Your task to perform on an android device: Play the last video I watched on Youtube Image 0: 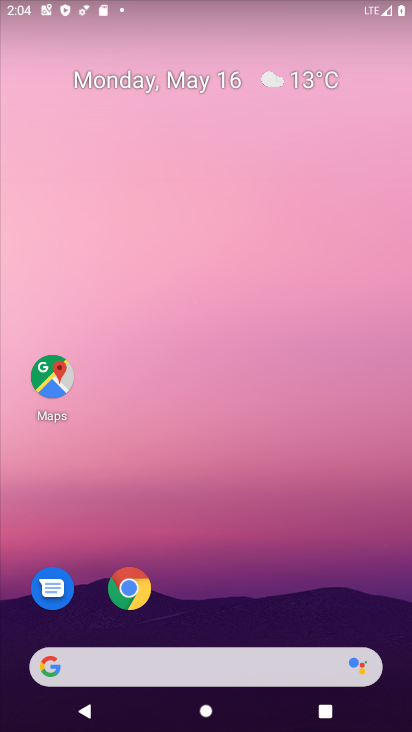
Step 0: drag from (152, 639) to (242, 121)
Your task to perform on an android device: Play the last video I watched on Youtube Image 1: 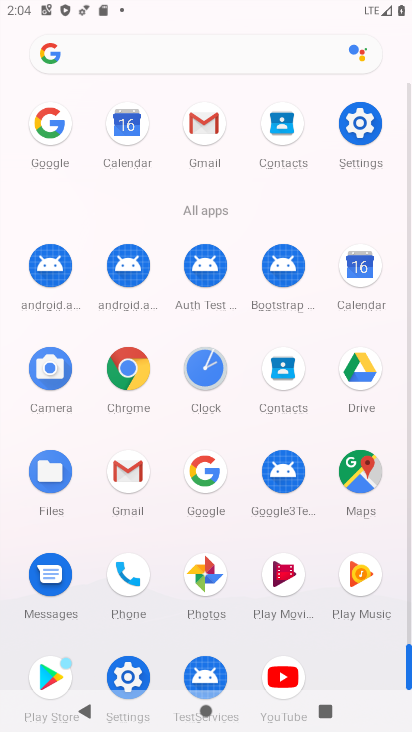
Step 1: drag from (231, 593) to (272, 434)
Your task to perform on an android device: Play the last video I watched on Youtube Image 2: 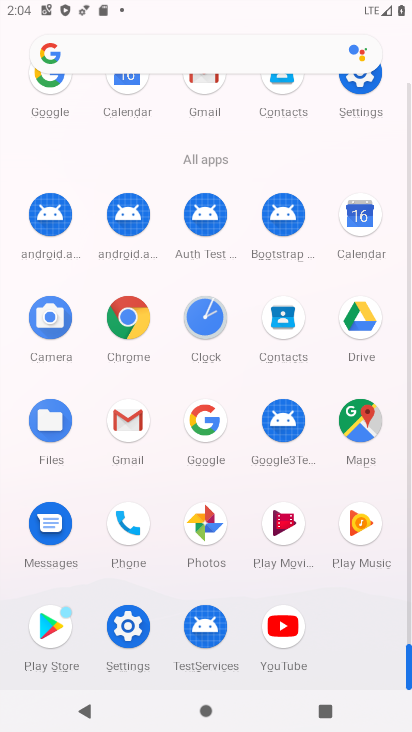
Step 2: click (285, 610)
Your task to perform on an android device: Play the last video I watched on Youtube Image 3: 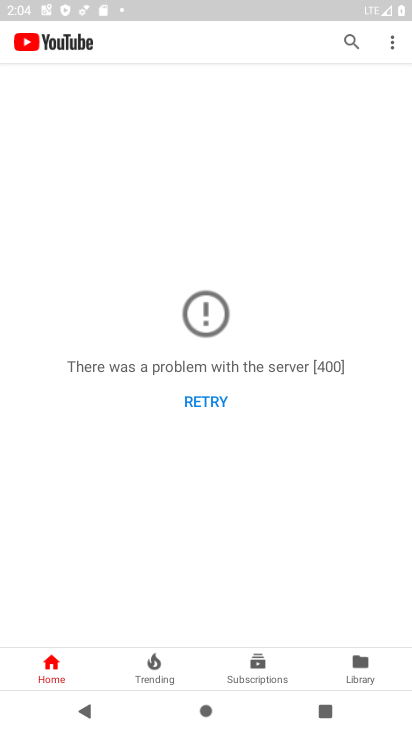
Step 3: click (365, 671)
Your task to perform on an android device: Play the last video I watched on Youtube Image 4: 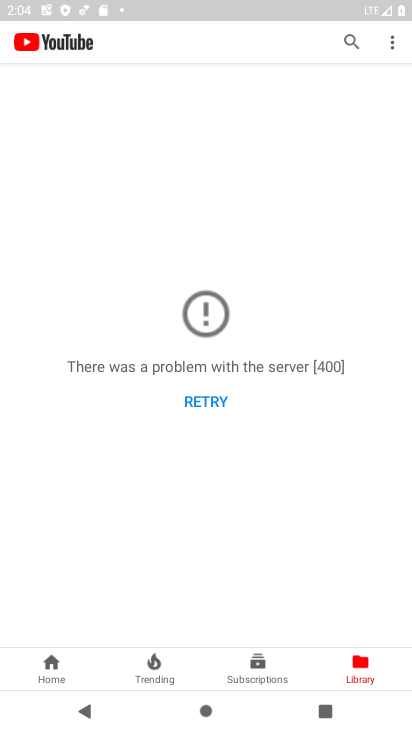
Step 4: task complete